Your task to perform on an android device: turn on airplane mode Image 0: 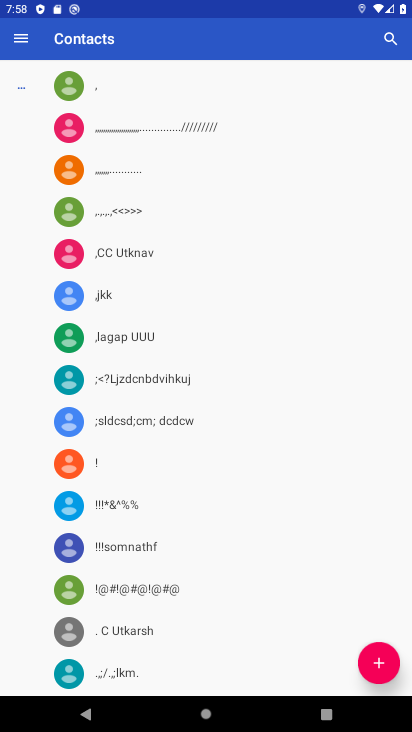
Step 0: press home button
Your task to perform on an android device: turn on airplane mode Image 1: 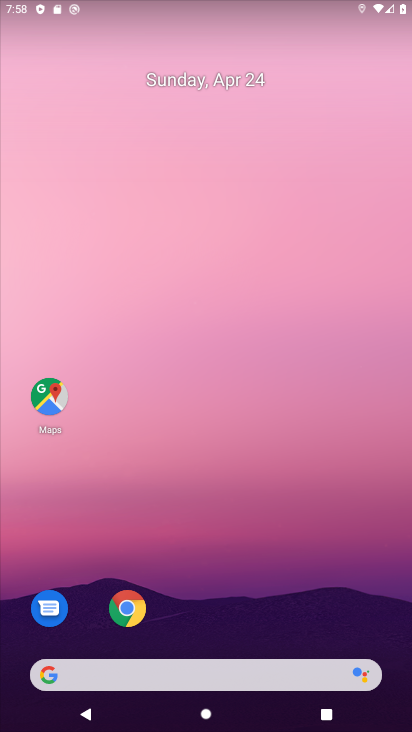
Step 1: drag from (190, 660) to (320, 14)
Your task to perform on an android device: turn on airplane mode Image 2: 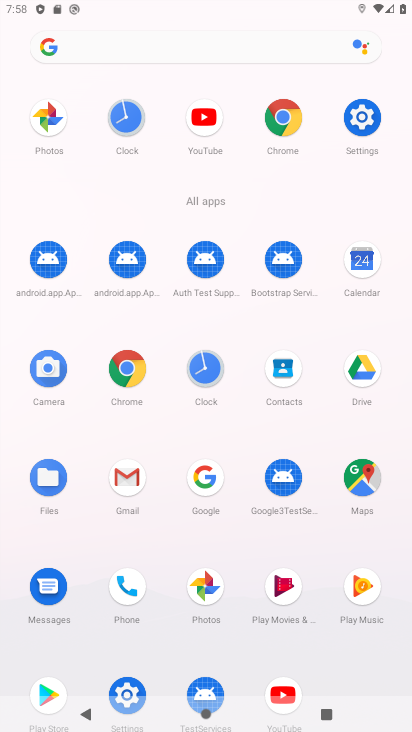
Step 2: click (127, 694)
Your task to perform on an android device: turn on airplane mode Image 3: 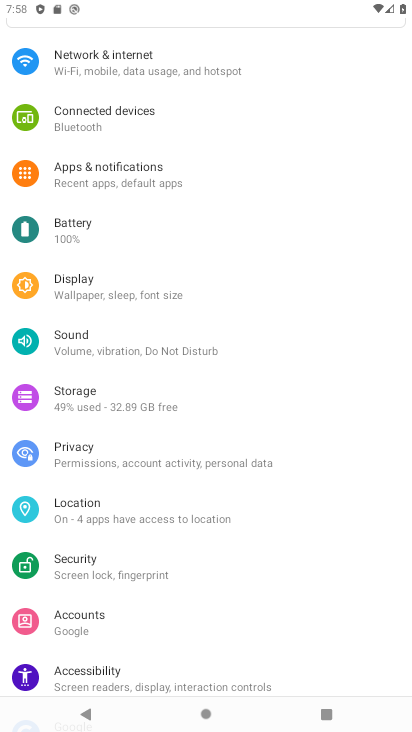
Step 3: click (172, 62)
Your task to perform on an android device: turn on airplane mode Image 4: 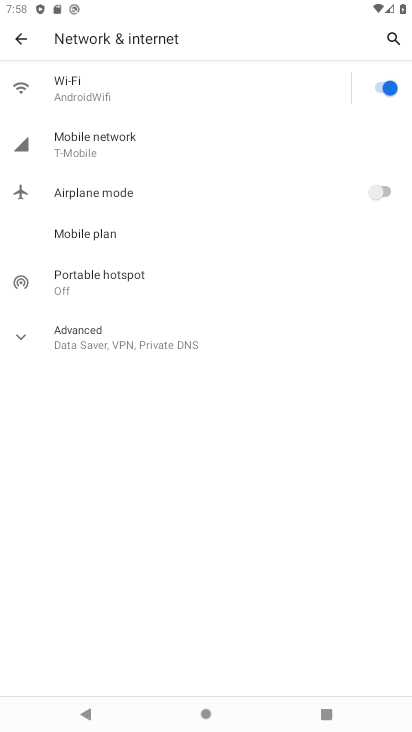
Step 4: click (391, 193)
Your task to perform on an android device: turn on airplane mode Image 5: 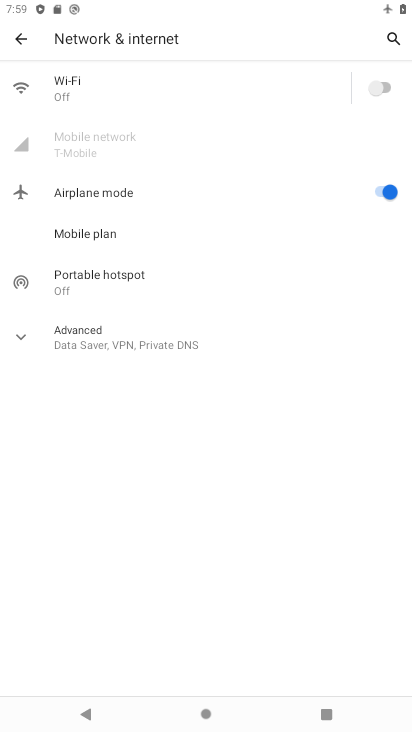
Step 5: task complete